Your task to perform on an android device: toggle javascript in the chrome app Image 0: 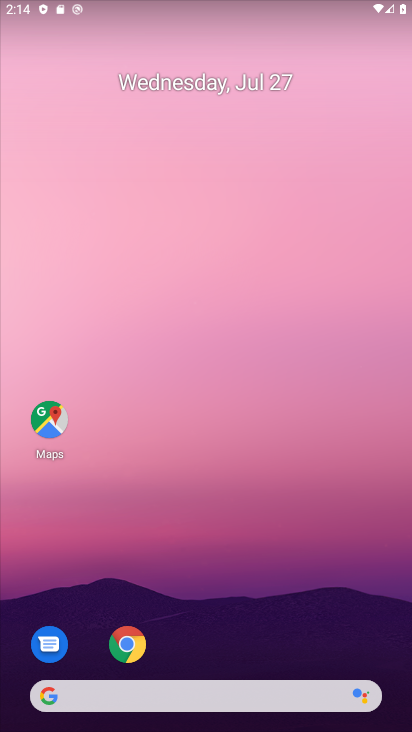
Step 0: click (133, 639)
Your task to perform on an android device: toggle javascript in the chrome app Image 1: 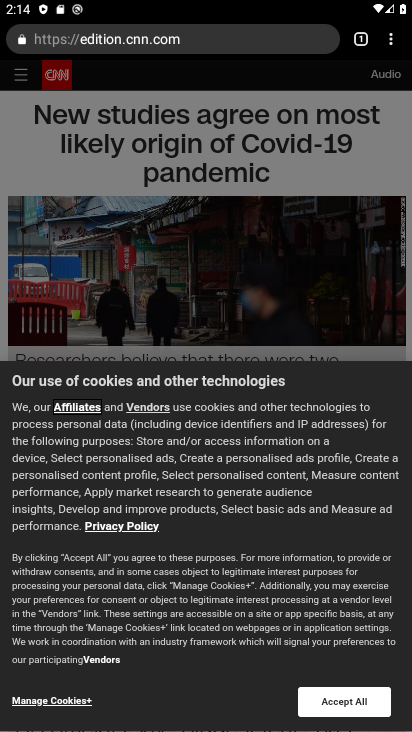
Step 1: click (396, 38)
Your task to perform on an android device: toggle javascript in the chrome app Image 2: 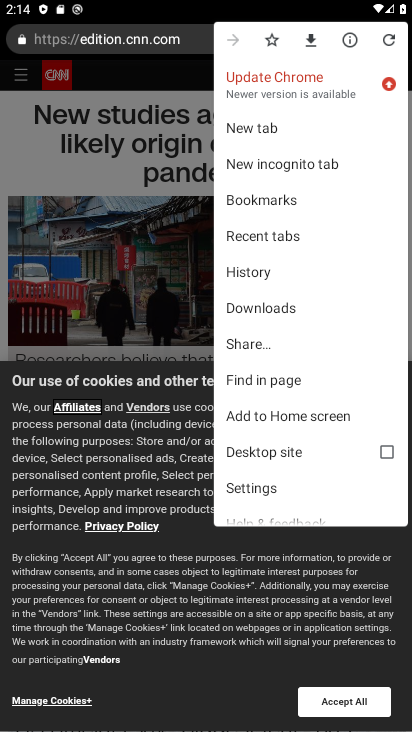
Step 2: click (284, 482)
Your task to perform on an android device: toggle javascript in the chrome app Image 3: 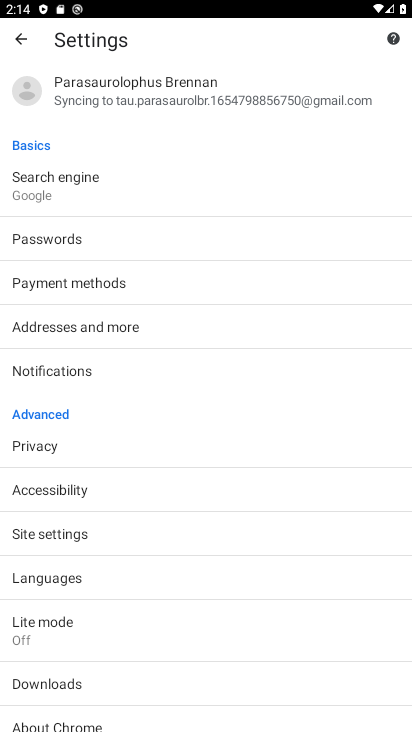
Step 3: click (118, 536)
Your task to perform on an android device: toggle javascript in the chrome app Image 4: 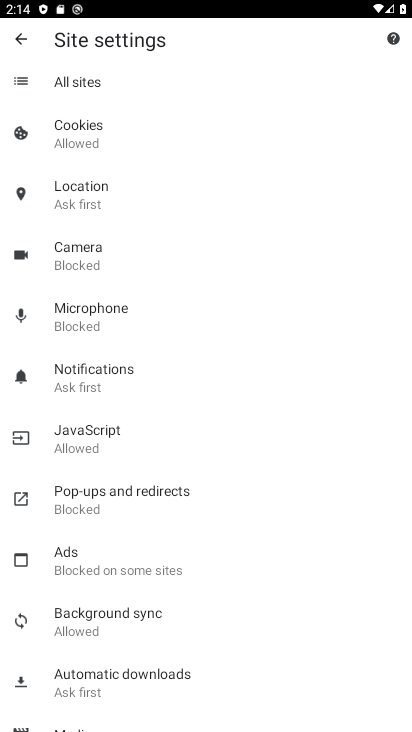
Step 4: click (148, 445)
Your task to perform on an android device: toggle javascript in the chrome app Image 5: 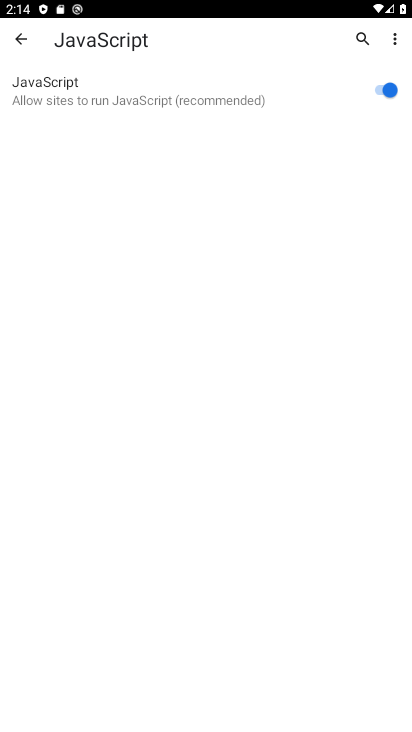
Step 5: click (387, 99)
Your task to perform on an android device: toggle javascript in the chrome app Image 6: 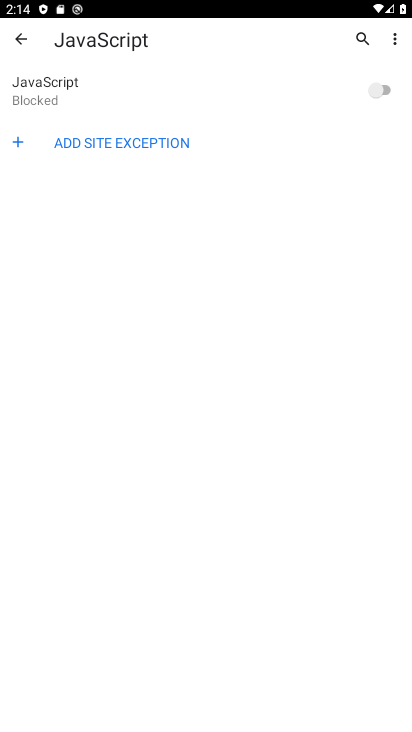
Step 6: task complete